Your task to perform on an android device: toggle translation in the chrome app Image 0: 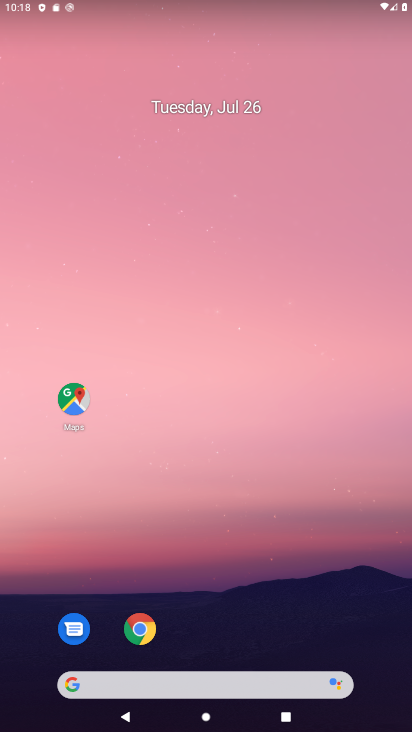
Step 0: drag from (307, 579) to (39, 16)
Your task to perform on an android device: toggle translation in the chrome app Image 1: 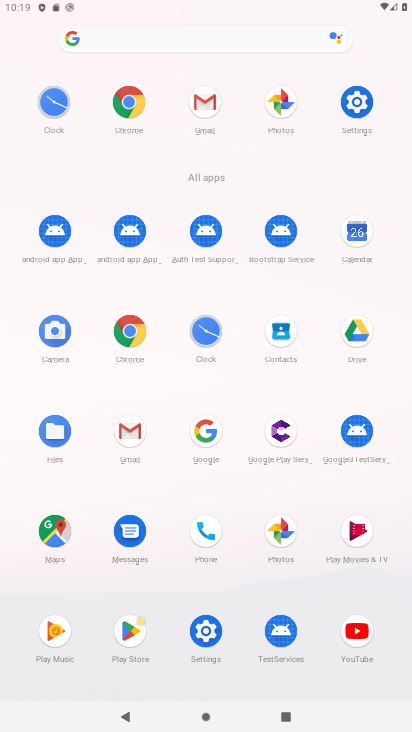
Step 1: click (126, 350)
Your task to perform on an android device: toggle translation in the chrome app Image 2: 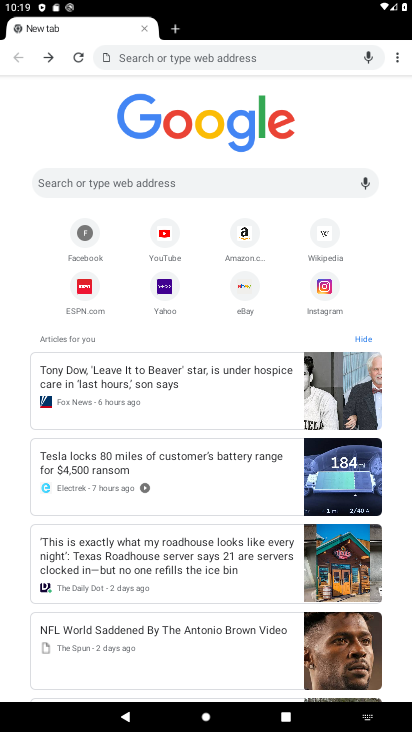
Step 2: click (396, 56)
Your task to perform on an android device: toggle translation in the chrome app Image 3: 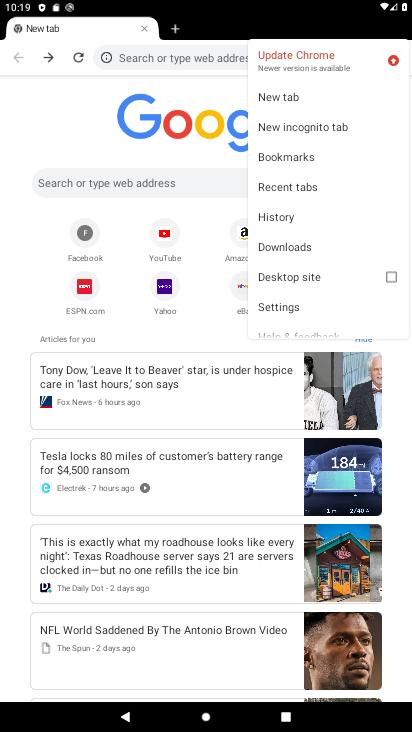
Step 3: click (277, 307)
Your task to perform on an android device: toggle translation in the chrome app Image 4: 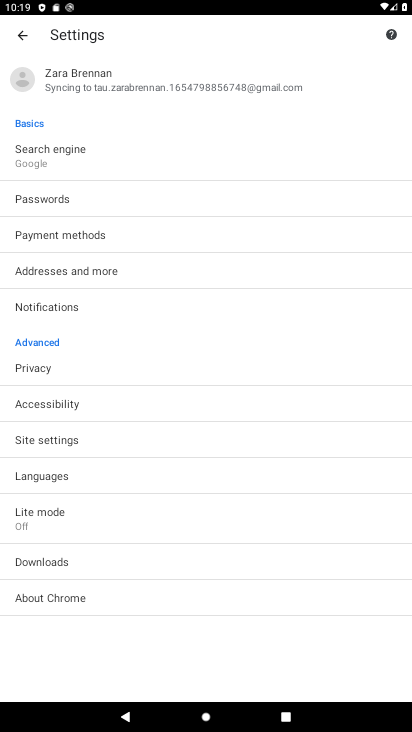
Step 4: click (127, 474)
Your task to perform on an android device: toggle translation in the chrome app Image 5: 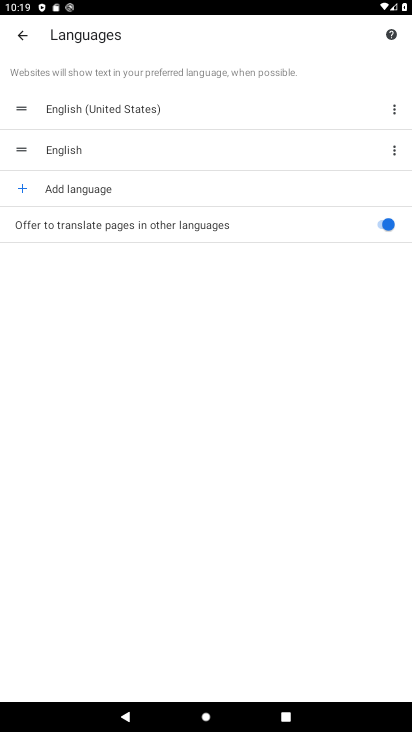
Step 5: click (370, 224)
Your task to perform on an android device: toggle translation in the chrome app Image 6: 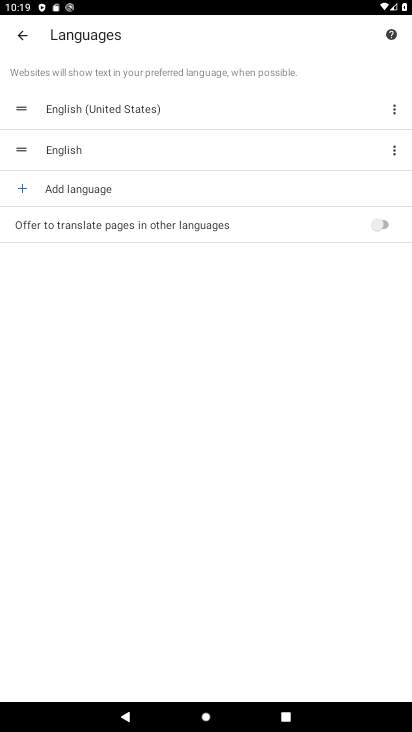
Step 6: task complete